Your task to perform on an android device: Open calendar and show me the fourth week of next month Image 0: 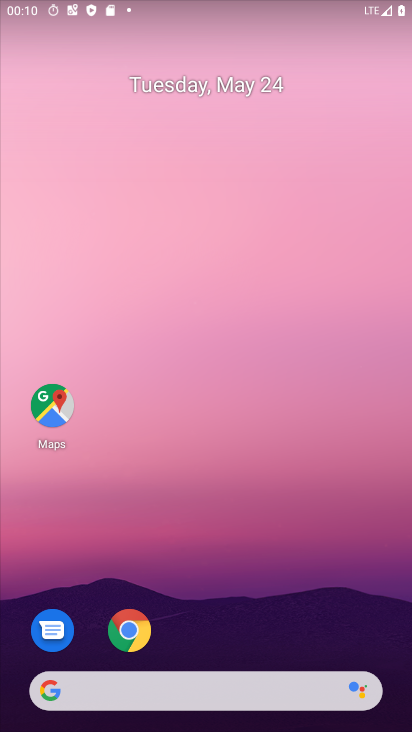
Step 0: drag from (282, 663) to (281, 6)
Your task to perform on an android device: Open calendar and show me the fourth week of next month Image 1: 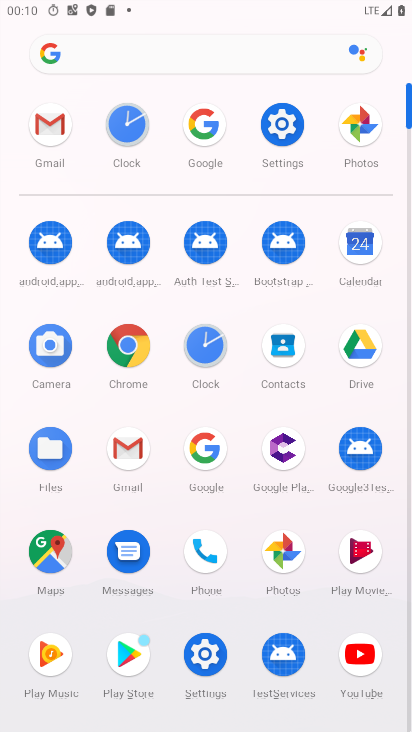
Step 1: click (357, 246)
Your task to perform on an android device: Open calendar and show me the fourth week of next month Image 2: 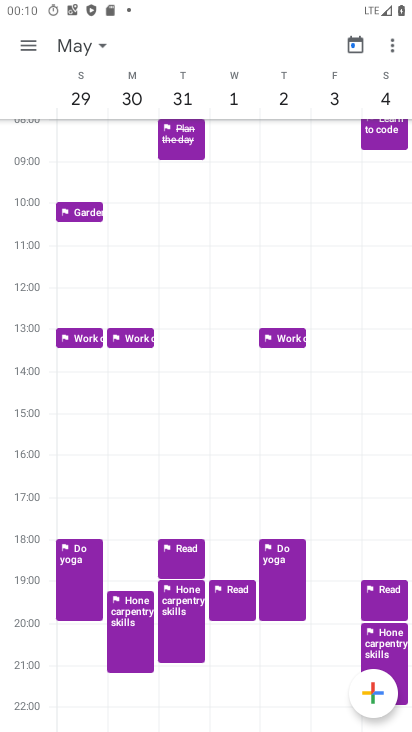
Step 2: task complete